Your task to perform on an android device: set the stopwatch Image 0: 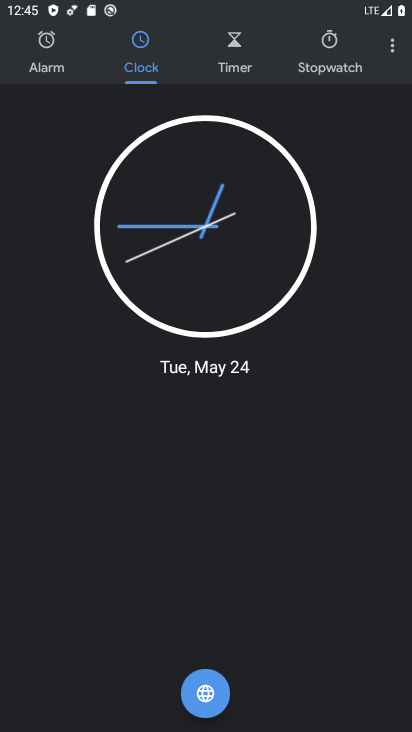
Step 0: press home button
Your task to perform on an android device: set the stopwatch Image 1: 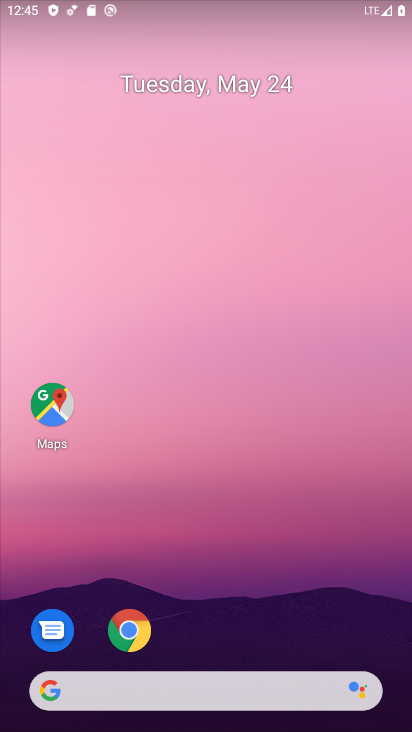
Step 1: drag from (330, 625) to (306, 207)
Your task to perform on an android device: set the stopwatch Image 2: 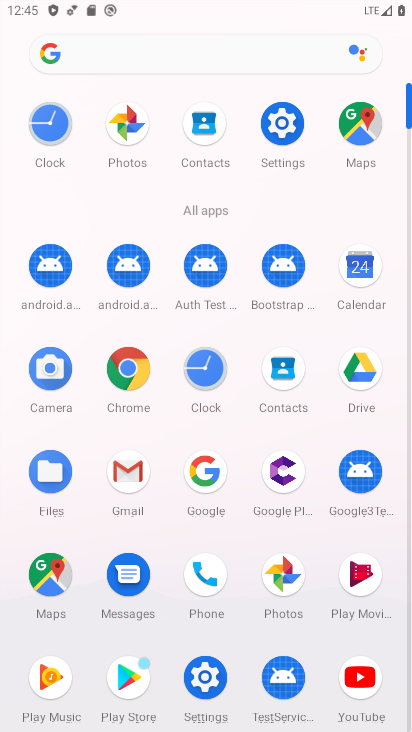
Step 2: click (213, 380)
Your task to perform on an android device: set the stopwatch Image 3: 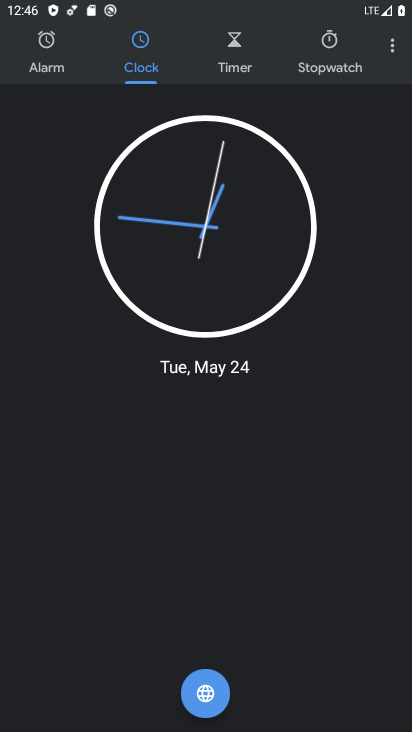
Step 3: click (334, 39)
Your task to perform on an android device: set the stopwatch Image 4: 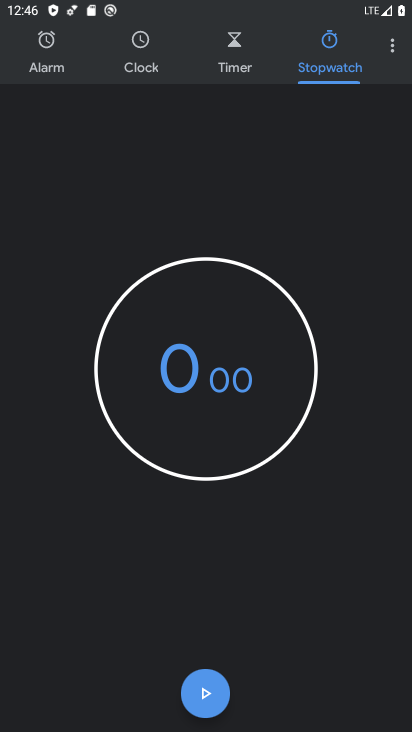
Step 4: task complete